Your task to perform on an android device: open wifi settings Image 0: 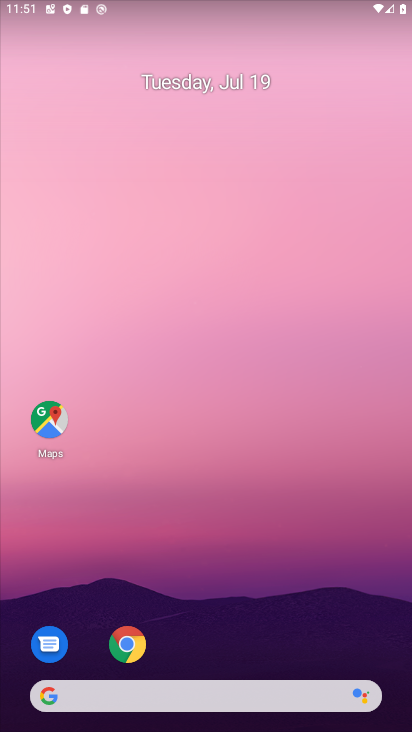
Step 0: press home button
Your task to perform on an android device: open wifi settings Image 1: 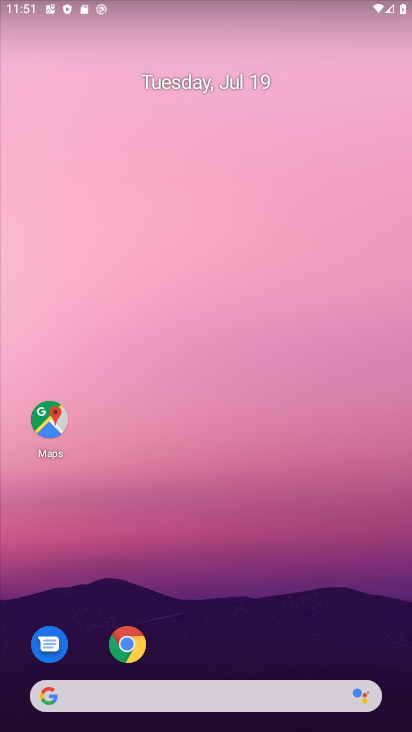
Step 1: drag from (241, 661) to (170, 165)
Your task to perform on an android device: open wifi settings Image 2: 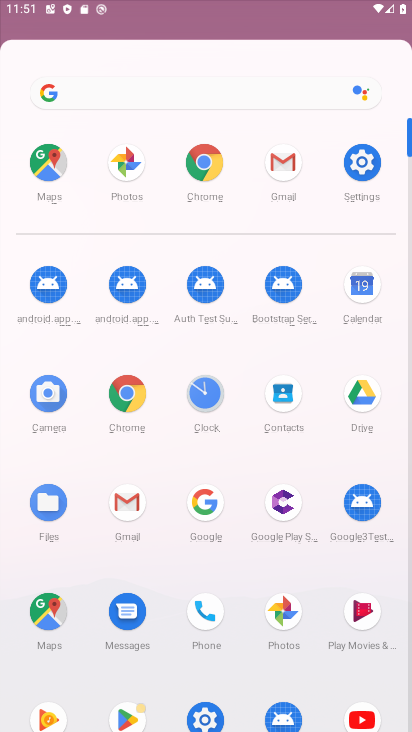
Step 2: drag from (282, 0) to (357, 643)
Your task to perform on an android device: open wifi settings Image 3: 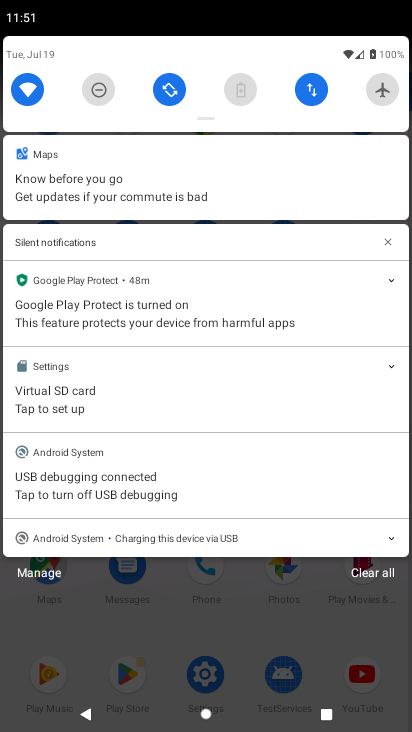
Step 3: click (15, 108)
Your task to perform on an android device: open wifi settings Image 4: 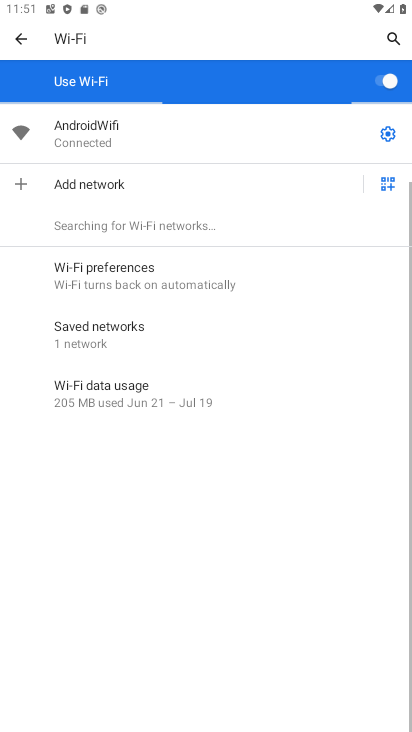
Step 4: task complete